Your task to perform on an android device: Do I have any events tomorrow? Image 0: 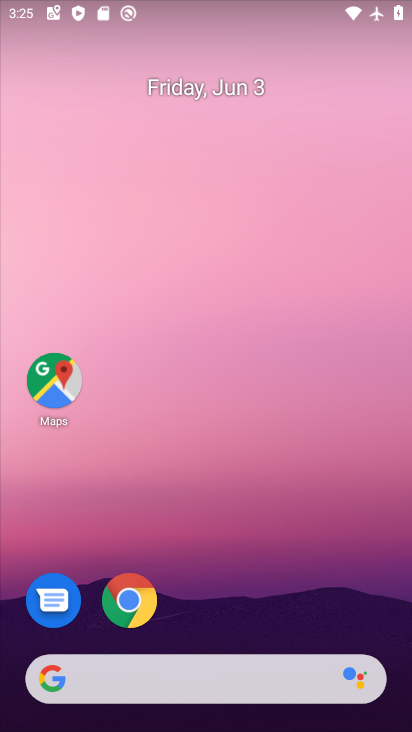
Step 0: drag from (234, 617) to (316, 47)
Your task to perform on an android device: Do I have any events tomorrow? Image 1: 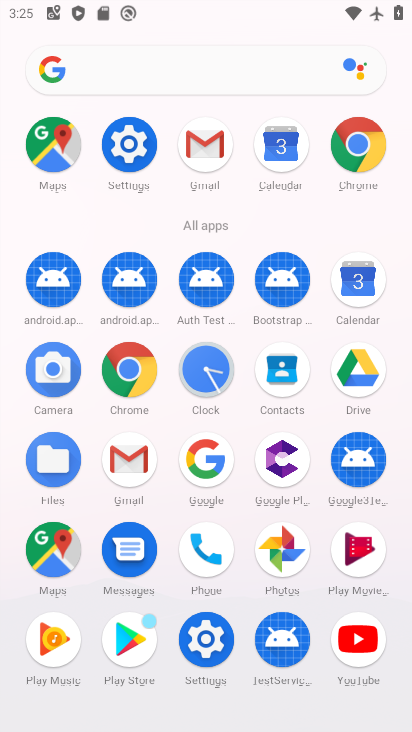
Step 1: click (357, 290)
Your task to perform on an android device: Do I have any events tomorrow? Image 2: 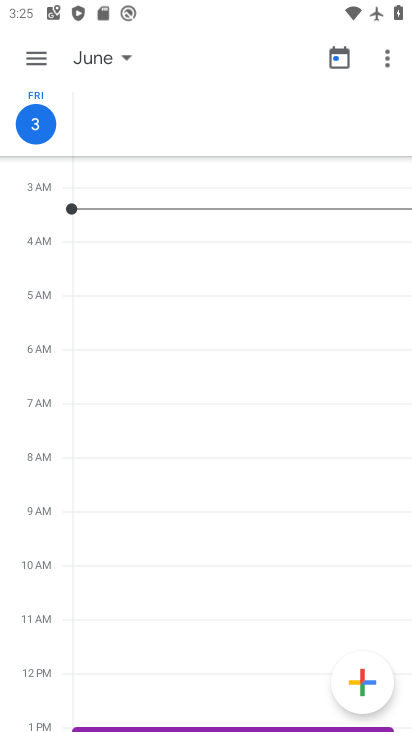
Step 2: click (50, 57)
Your task to perform on an android device: Do I have any events tomorrow? Image 3: 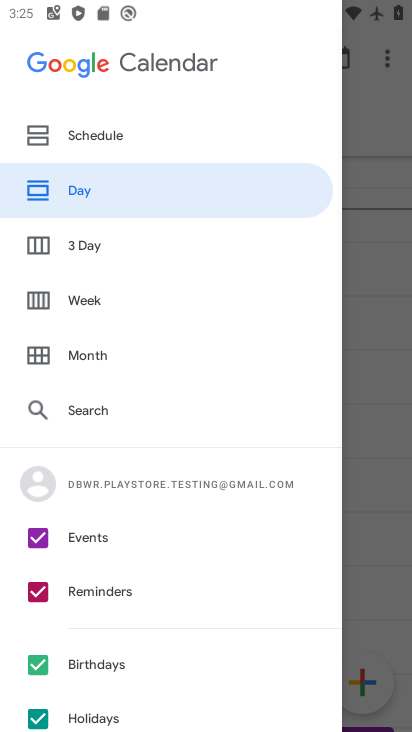
Step 3: drag from (159, 571) to (185, 442)
Your task to perform on an android device: Do I have any events tomorrow? Image 4: 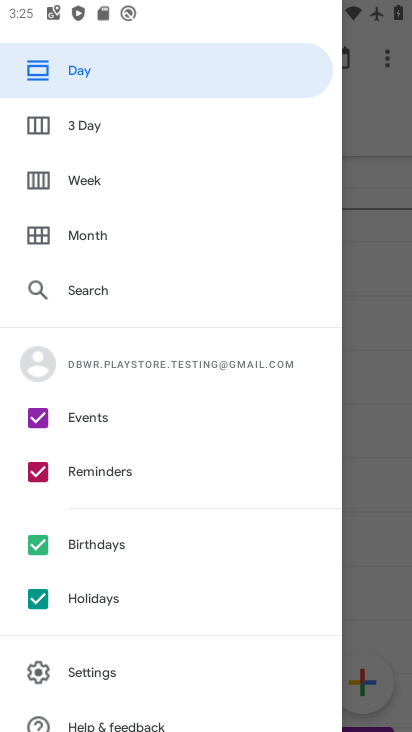
Step 4: click (114, 547)
Your task to perform on an android device: Do I have any events tomorrow? Image 5: 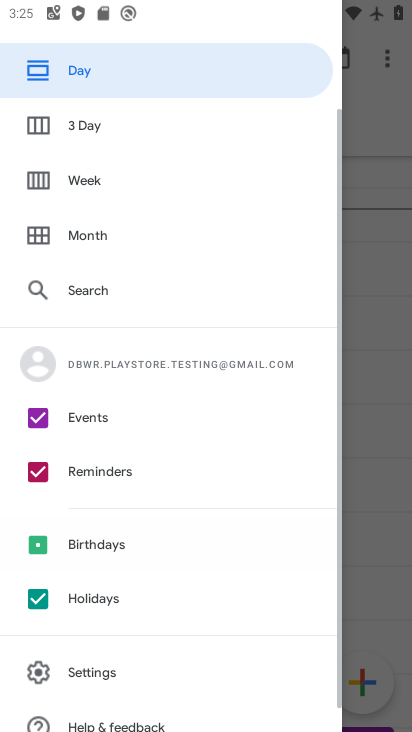
Step 5: click (111, 469)
Your task to perform on an android device: Do I have any events tomorrow? Image 6: 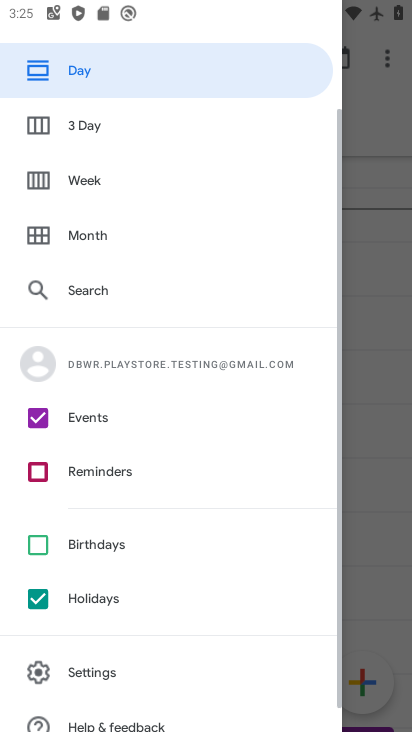
Step 6: click (98, 602)
Your task to perform on an android device: Do I have any events tomorrow? Image 7: 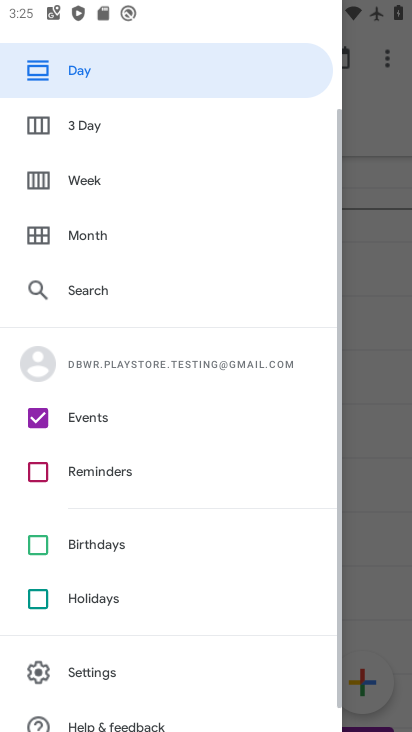
Step 7: click (87, 125)
Your task to perform on an android device: Do I have any events tomorrow? Image 8: 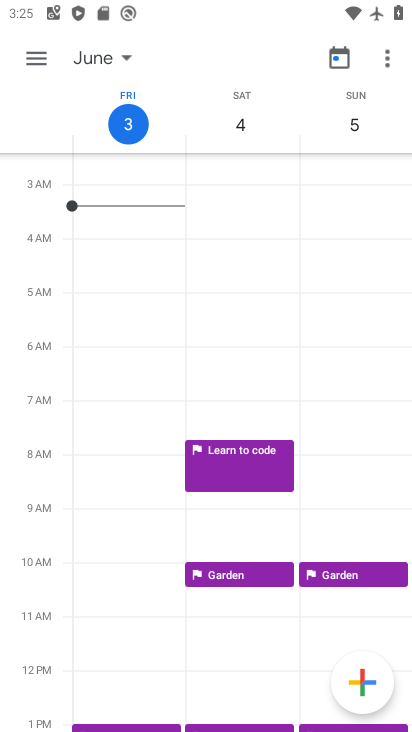
Step 8: task complete